Your task to perform on an android device: remove spam from my inbox in the gmail app Image 0: 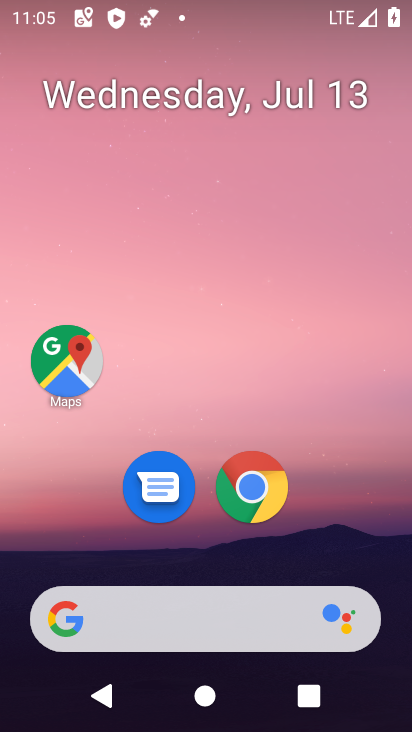
Step 0: drag from (227, 553) to (248, 14)
Your task to perform on an android device: remove spam from my inbox in the gmail app Image 1: 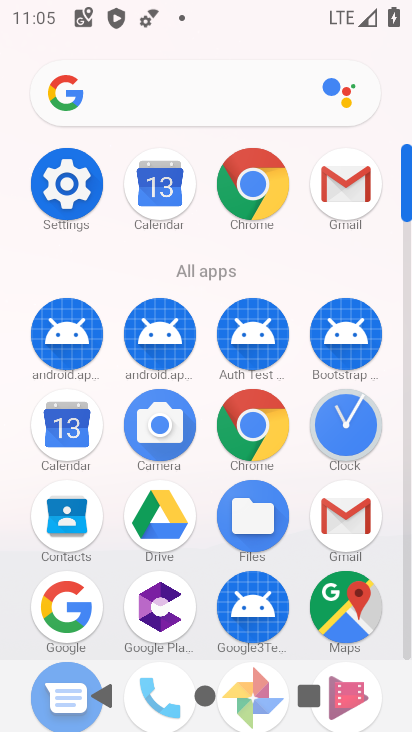
Step 1: click (352, 506)
Your task to perform on an android device: remove spam from my inbox in the gmail app Image 2: 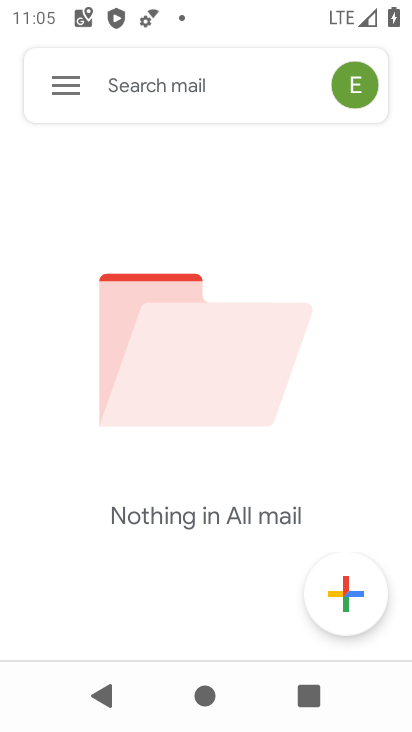
Step 2: click (46, 83)
Your task to perform on an android device: remove spam from my inbox in the gmail app Image 3: 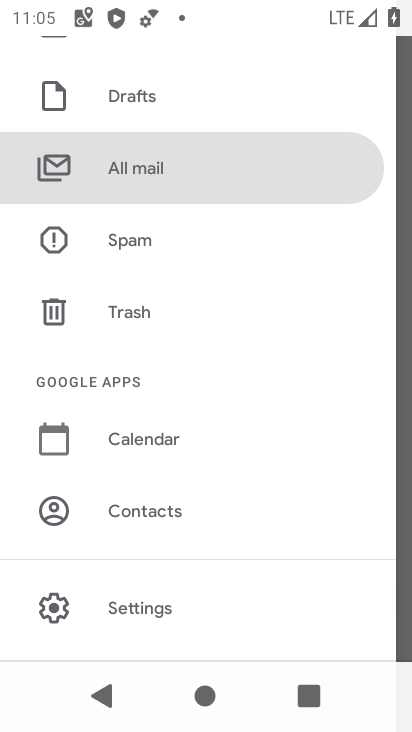
Step 3: click (127, 240)
Your task to perform on an android device: remove spam from my inbox in the gmail app Image 4: 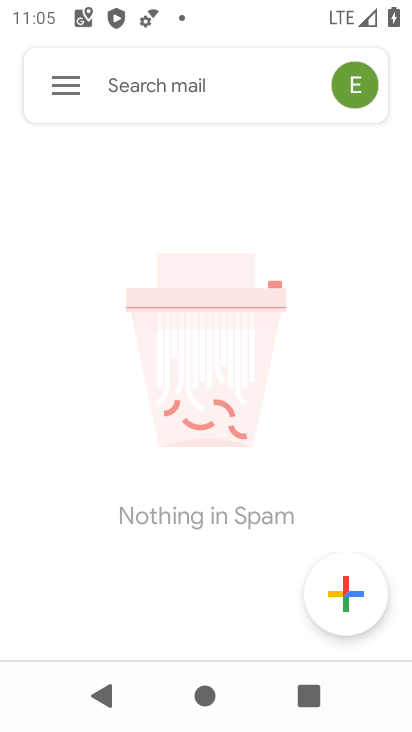
Step 4: task complete